Your task to perform on an android device: clear history in the chrome app Image 0: 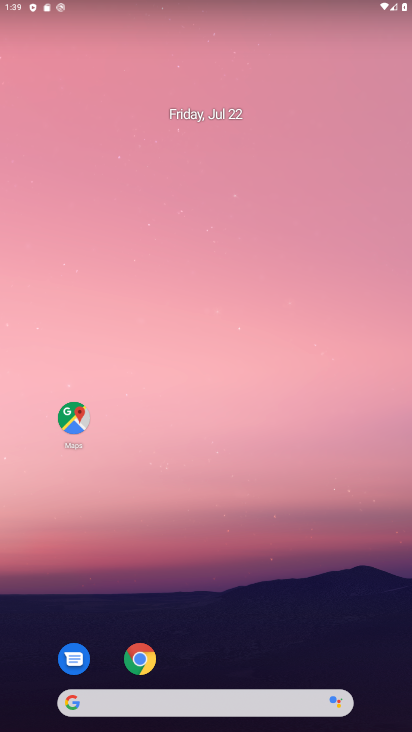
Step 0: click (162, 196)
Your task to perform on an android device: clear history in the chrome app Image 1: 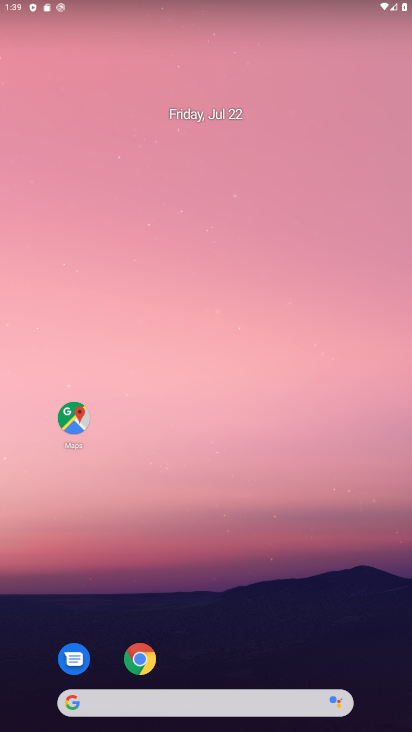
Step 1: drag from (235, 628) to (121, 73)
Your task to perform on an android device: clear history in the chrome app Image 2: 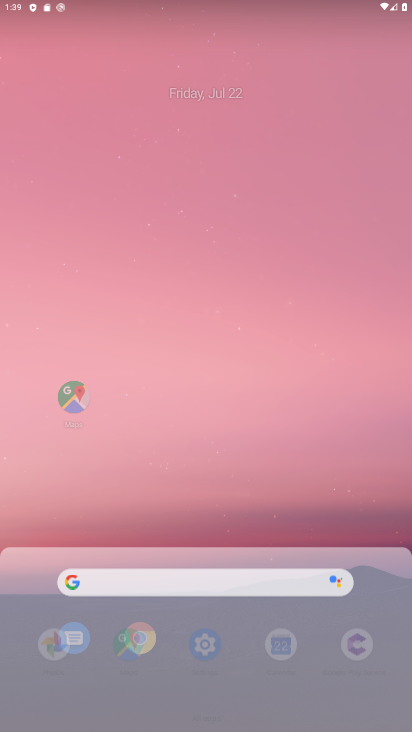
Step 2: drag from (176, 575) to (168, 183)
Your task to perform on an android device: clear history in the chrome app Image 3: 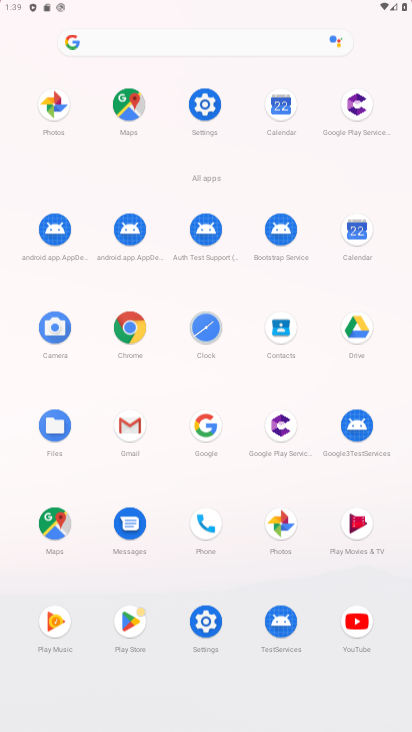
Step 3: drag from (195, 477) to (136, 152)
Your task to perform on an android device: clear history in the chrome app Image 4: 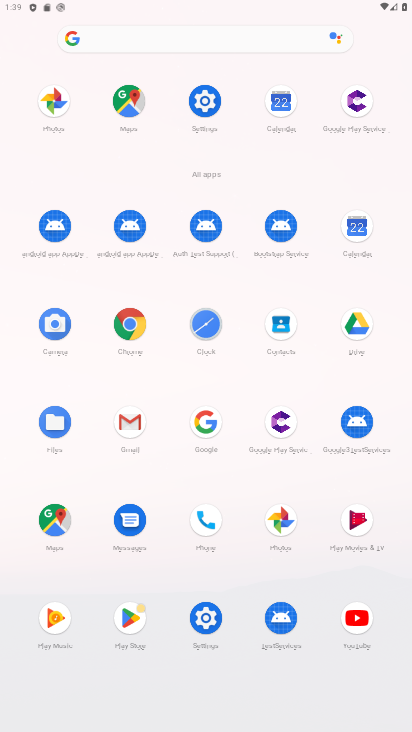
Step 4: click (124, 326)
Your task to perform on an android device: clear history in the chrome app Image 5: 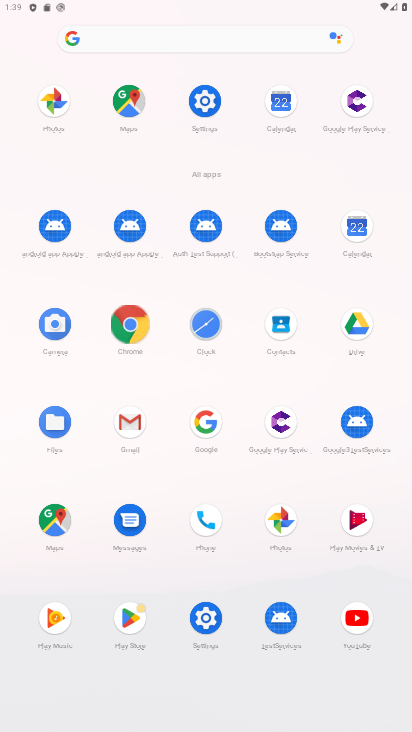
Step 5: click (126, 326)
Your task to perform on an android device: clear history in the chrome app Image 6: 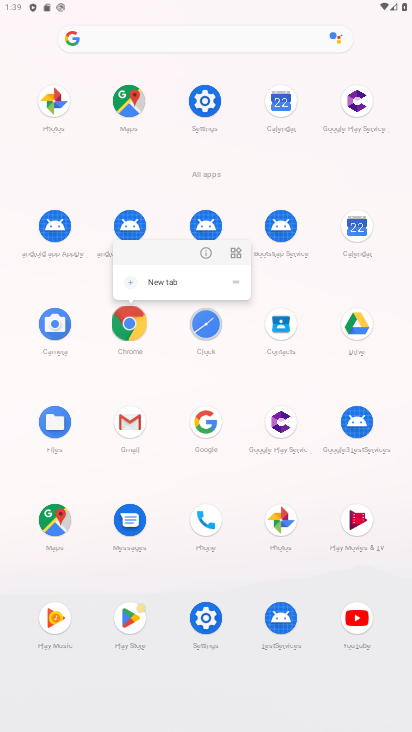
Step 6: click (126, 326)
Your task to perform on an android device: clear history in the chrome app Image 7: 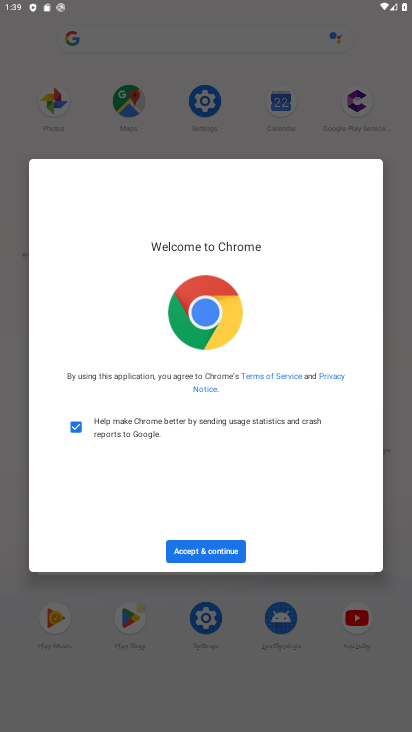
Step 7: click (223, 546)
Your task to perform on an android device: clear history in the chrome app Image 8: 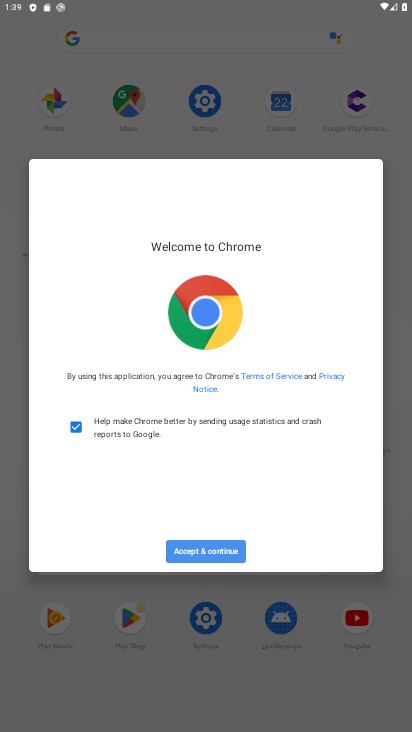
Step 8: click (220, 546)
Your task to perform on an android device: clear history in the chrome app Image 9: 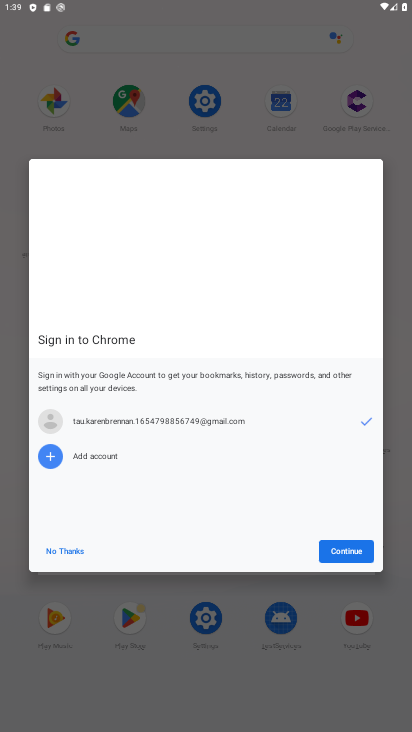
Step 9: click (45, 546)
Your task to perform on an android device: clear history in the chrome app Image 10: 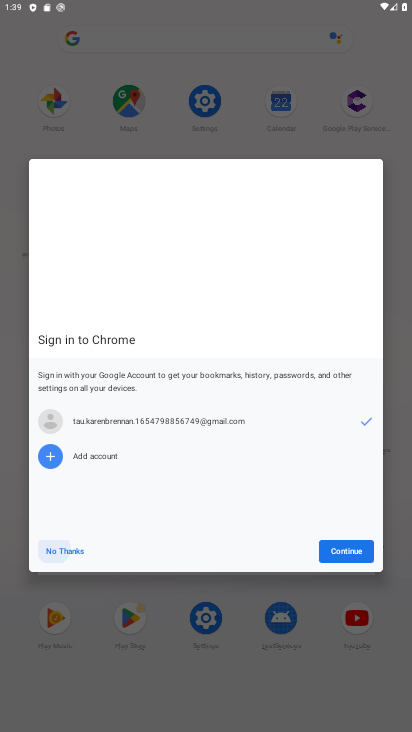
Step 10: click (48, 547)
Your task to perform on an android device: clear history in the chrome app Image 11: 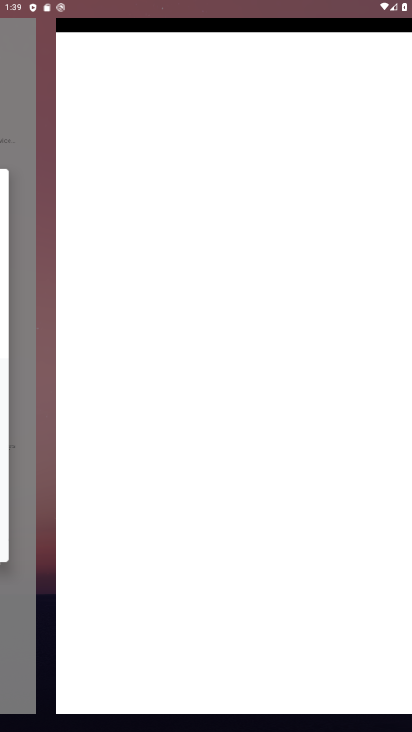
Step 11: click (56, 541)
Your task to perform on an android device: clear history in the chrome app Image 12: 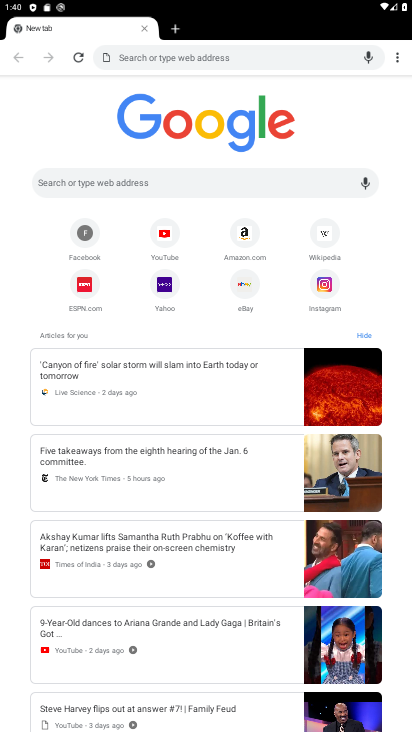
Step 12: task complete